Your task to perform on an android device: Open maps Image 0: 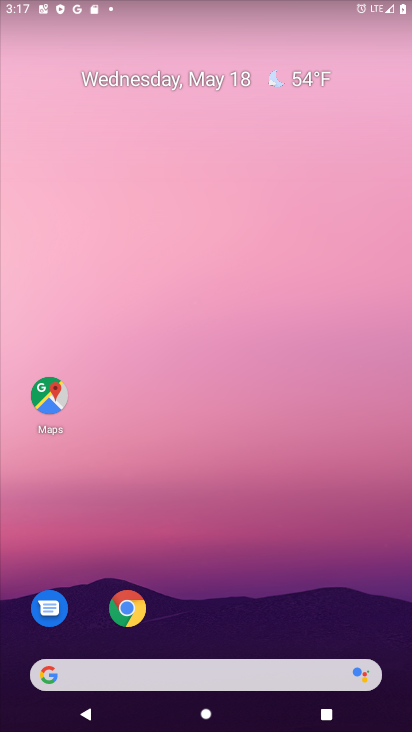
Step 0: click (44, 405)
Your task to perform on an android device: Open maps Image 1: 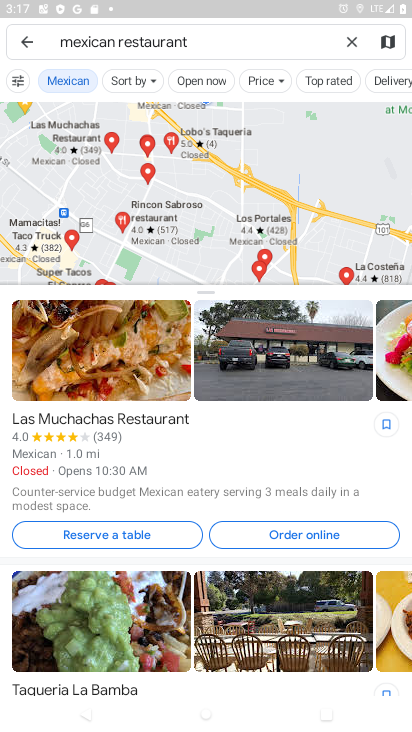
Step 1: task complete